Your task to perform on an android device: change notification settings in the gmail app Image 0: 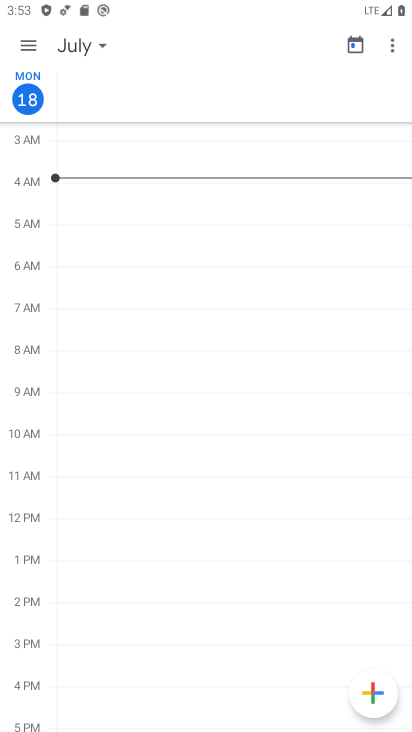
Step 0: press home button
Your task to perform on an android device: change notification settings in the gmail app Image 1: 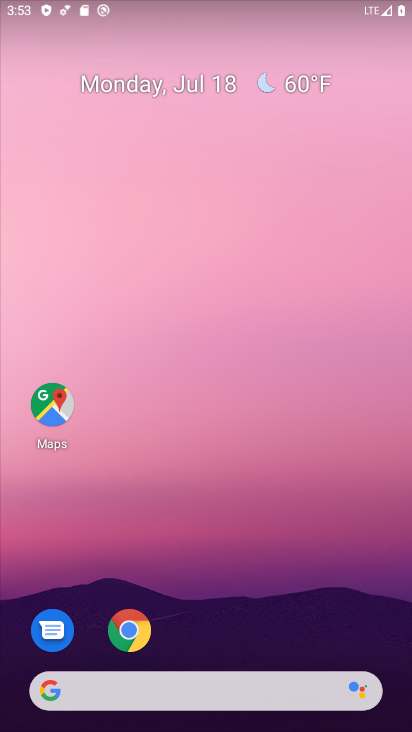
Step 1: drag from (255, 569) to (230, 157)
Your task to perform on an android device: change notification settings in the gmail app Image 2: 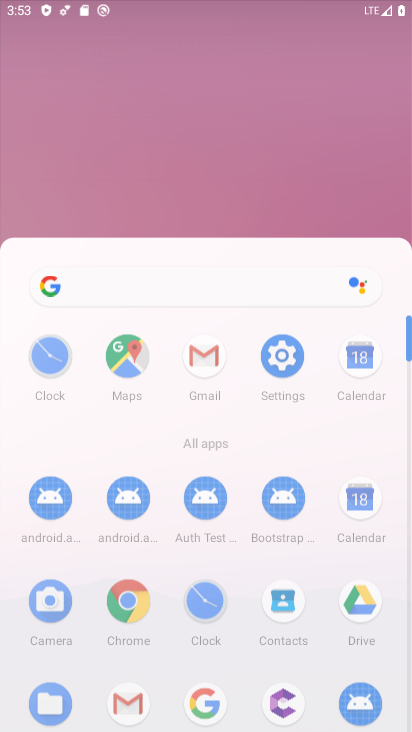
Step 2: click (230, 157)
Your task to perform on an android device: change notification settings in the gmail app Image 3: 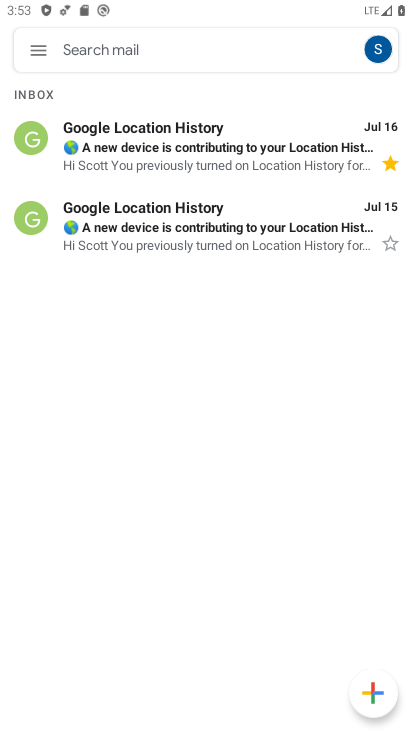
Step 3: click (39, 55)
Your task to perform on an android device: change notification settings in the gmail app Image 4: 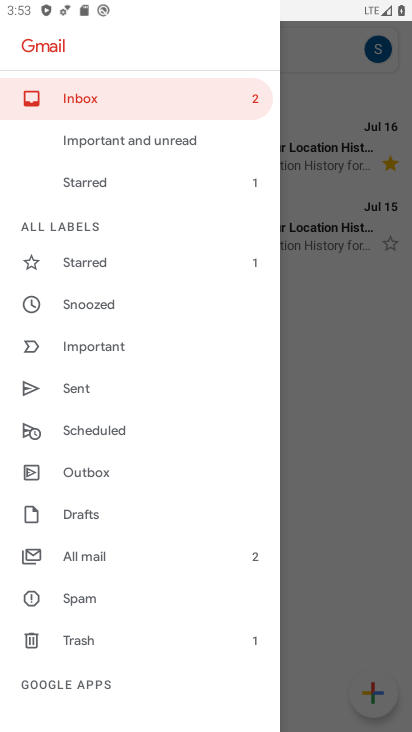
Step 4: drag from (153, 623) to (125, 398)
Your task to perform on an android device: change notification settings in the gmail app Image 5: 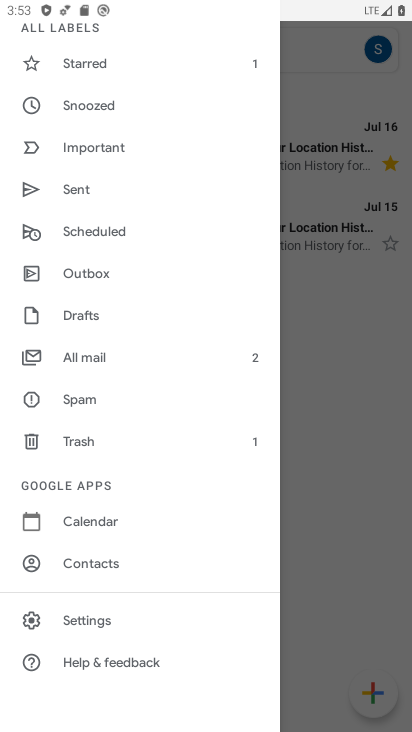
Step 5: click (111, 622)
Your task to perform on an android device: change notification settings in the gmail app Image 6: 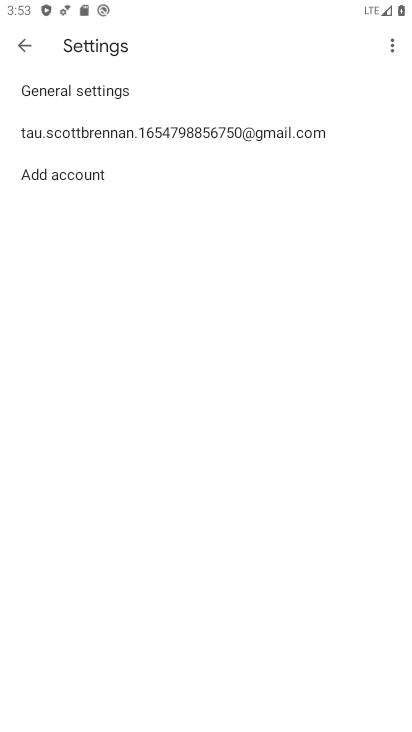
Step 6: click (62, 130)
Your task to perform on an android device: change notification settings in the gmail app Image 7: 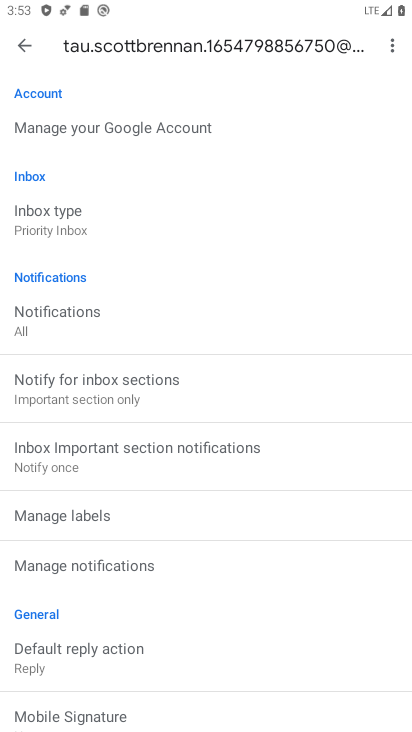
Step 7: click (56, 335)
Your task to perform on an android device: change notification settings in the gmail app Image 8: 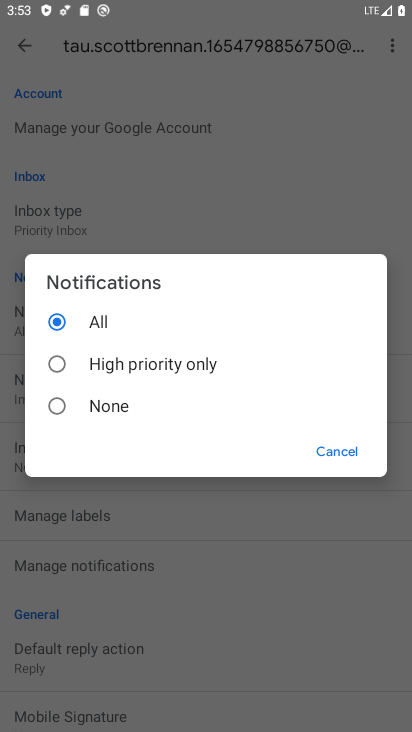
Step 8: click (98, 413)
Your task to perform on an android device: change notification settings in the gmail app Image 9: 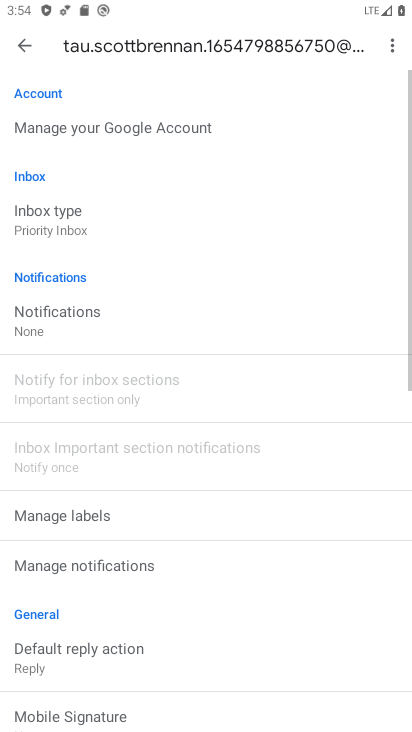
Step 9: click (145, 566)
Your task to perform on an android device: change notification settings in the gmail app Image 10: 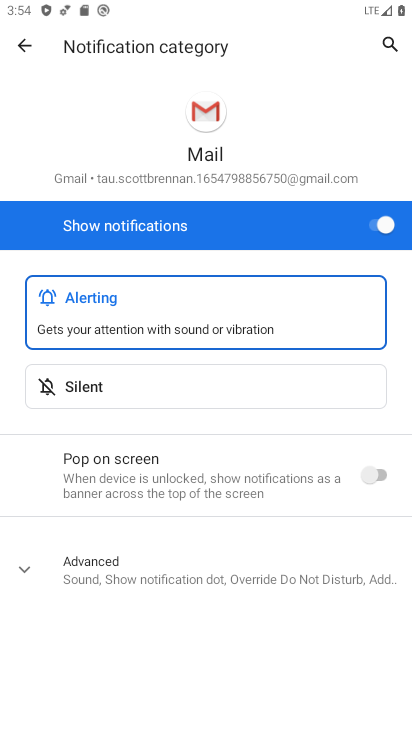
Step 10: click (152, 394)
Your task to perform on an android device: change notification settings in the gmail app Image 11: 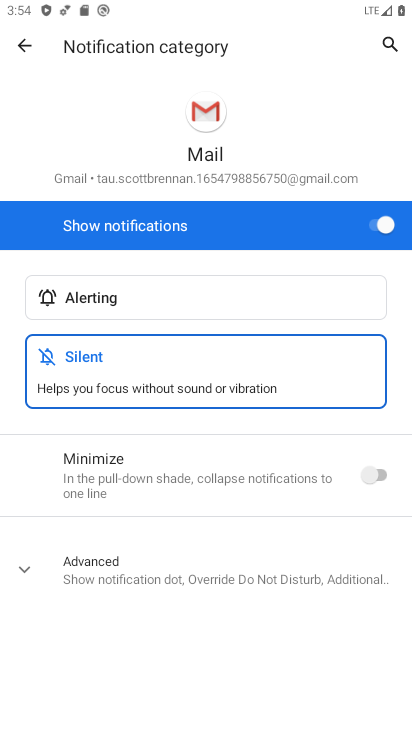
Step 11: click (377, 475)
Your task to perform on an android device: change notification settings in the gmail app Image 12: 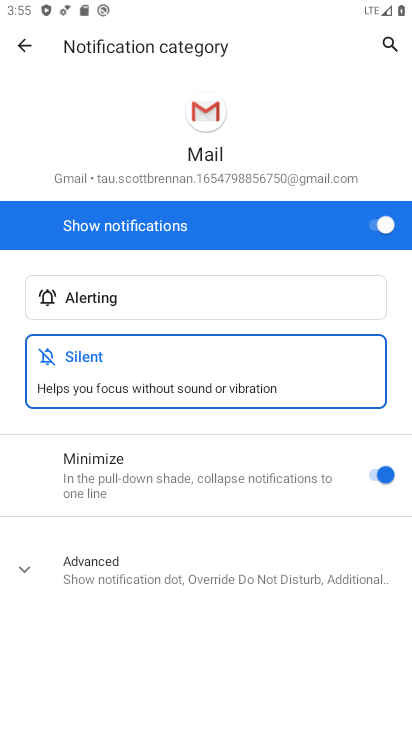
Step 12: task complete